Your task to perform on an android device: Go to CNN.com Image 0: 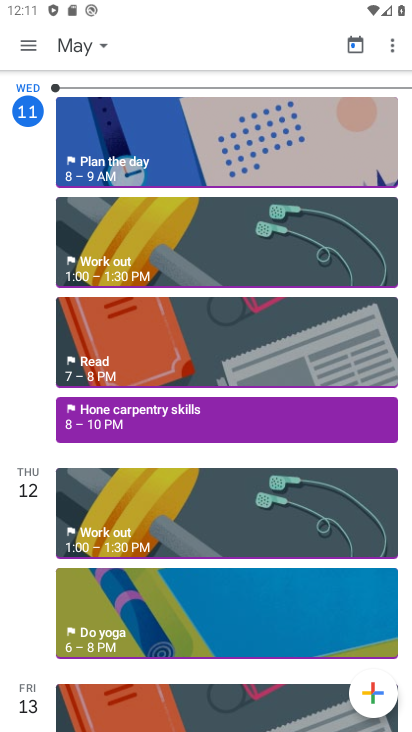
Step 0: press home button
Your task to perform on an android device: Go to CNN.com Image 1: 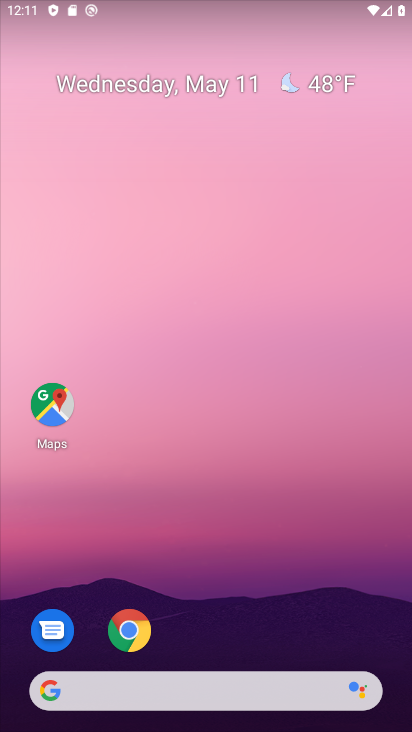
Step 1: click (124, 624)
Your task to perform on an android device: Go to CNN.com Image 2: 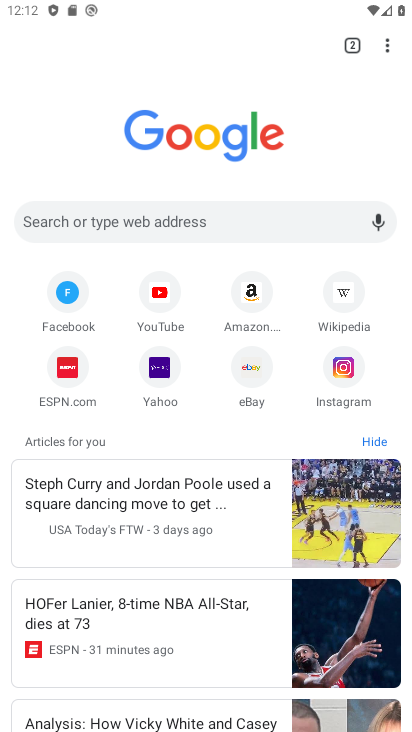
Step 2: click (229, 214)
Your task to perform on an android device: Go to CNN.com Image 3: 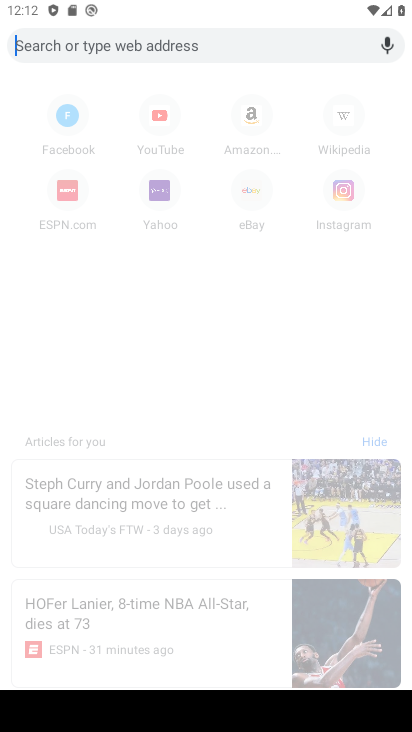
Step 3: type "cnn"
Your task to perform on an android device: Go to CNN.com Image 4: 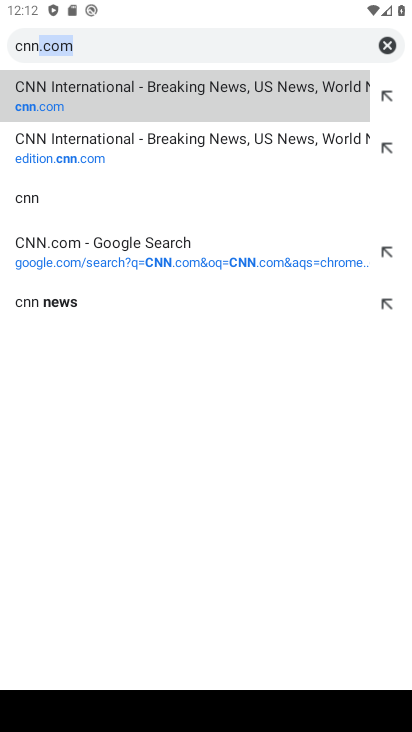
Step 4: type ""
Your task to perform on an android device: Go to CNN.com Image 5: 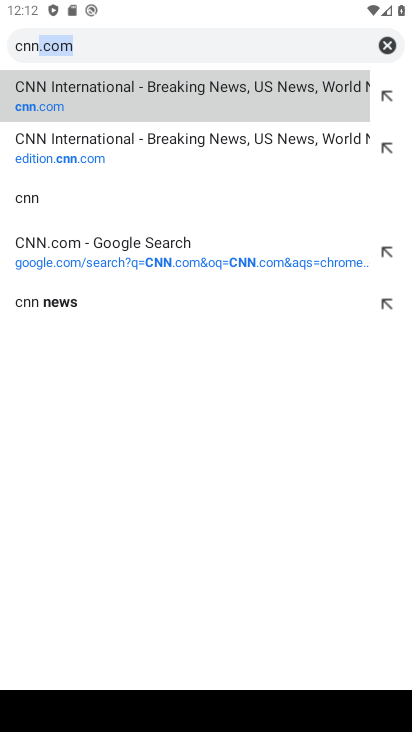
Step 5: click (87, 145)
Your task to perform on an android device: Go to CNN.com Image 6: 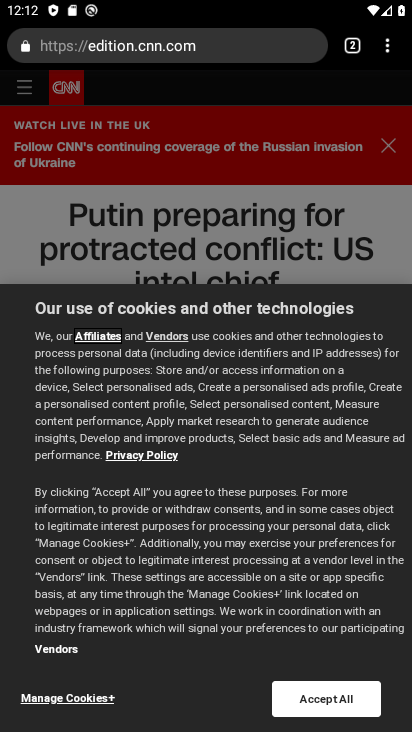
Step 6: task complete